Your task to perform on an android device: Show me productivity apps on the Play Store Image 0: 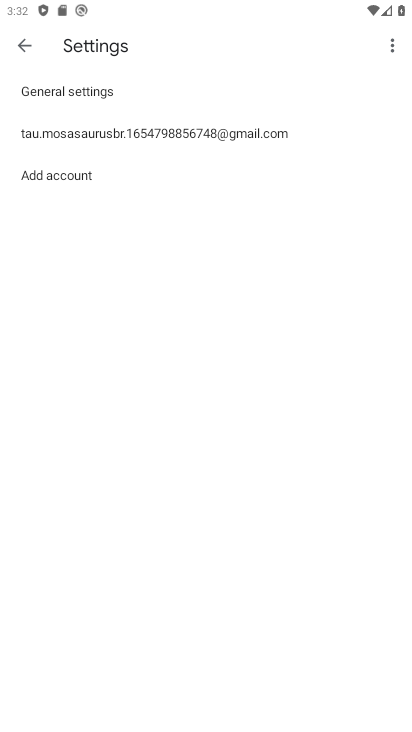
Step 0: press home button
Your task to perform on an android device: Show me productivity apps on the Play Store Image 1: 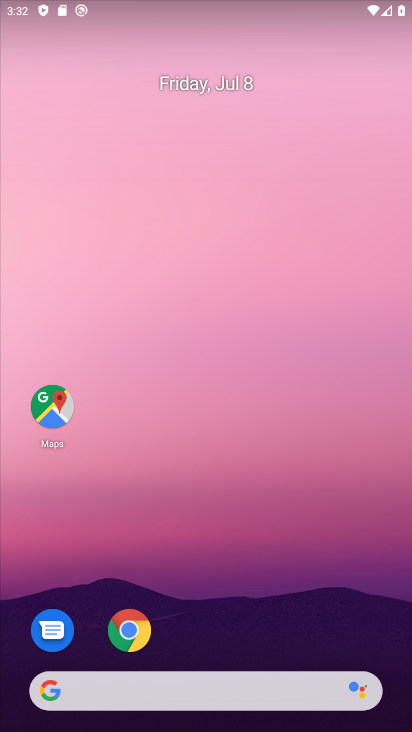
Step 1: drag from (200, 635) to (219, 164)
Your task to perform on an android device: Show me productivity apps on the Play Store Image 2: 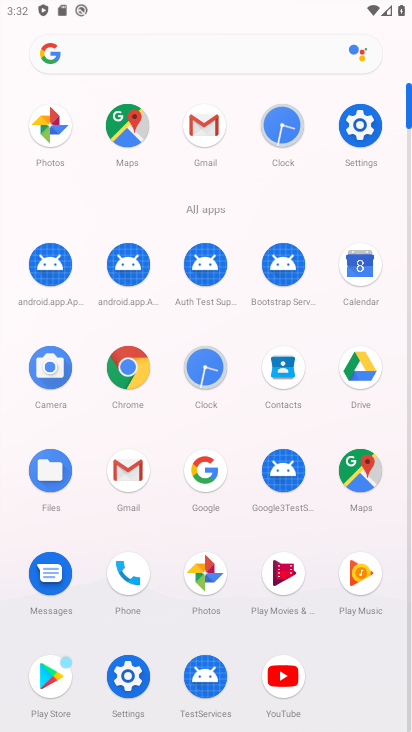
Step 2: click (38, 685)
Your task to perform on an android device: Show me productivity apps on the Play Store Image 3: 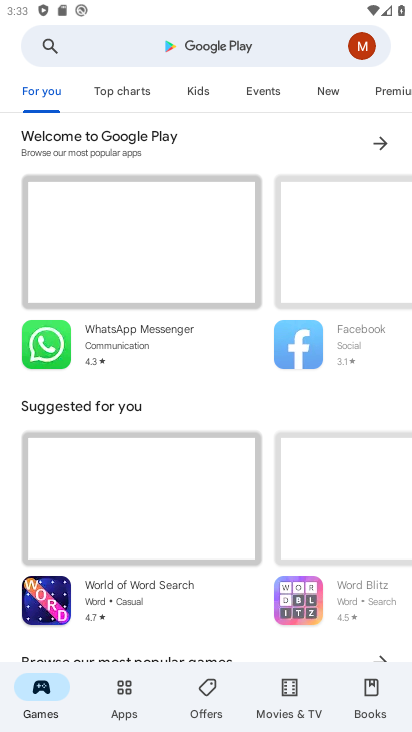
Step 3: click (143, 701)
Your task to perform on an android device: Show me productivity apps on the Play Store Image 4: 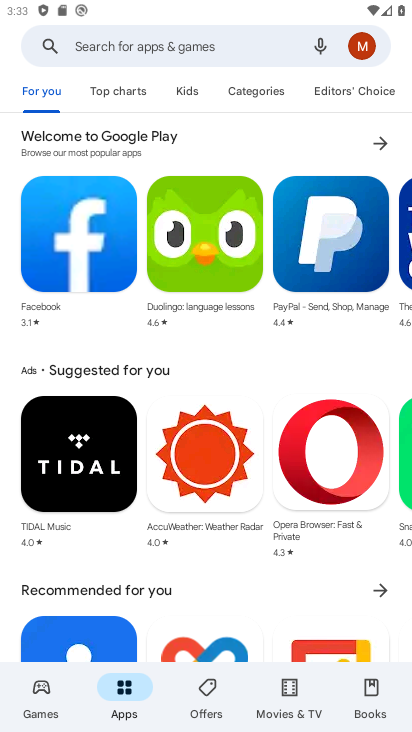
Step 4: click (272, 97)
Your task to perform on an android device: Show me productivity apps on the Play Store Image 5: 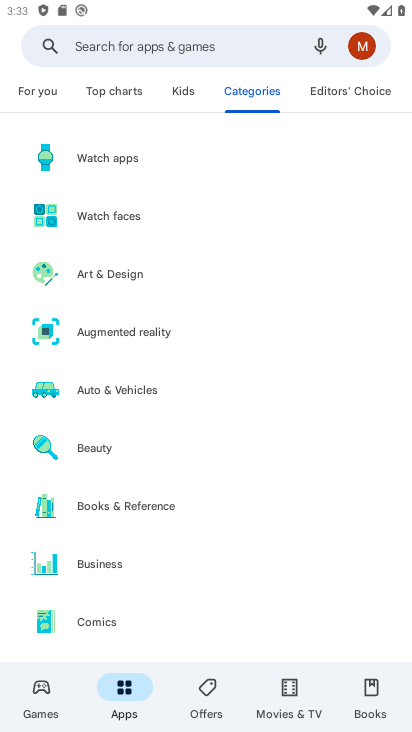
Step 5: drag from (123, 603) to (204, 121)
Your task to perform on an android device: Show me productivity apps on the Play Store Image 6: 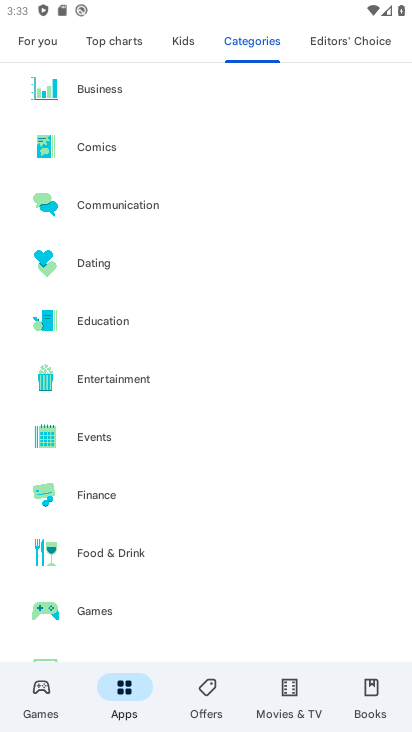
Step 6: drag from (154, 574) to (223, 170)
Your task to perform on an android device: Show me productivity apps on the Play Store Image 7: 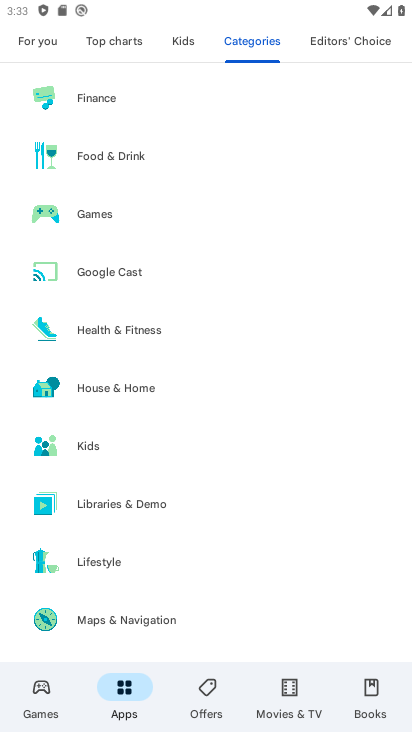
Step 7: drag from (170, 612) to (275, 236)
Your task to perform on an android device: Show me productivity apps on the Play Store Image 8: 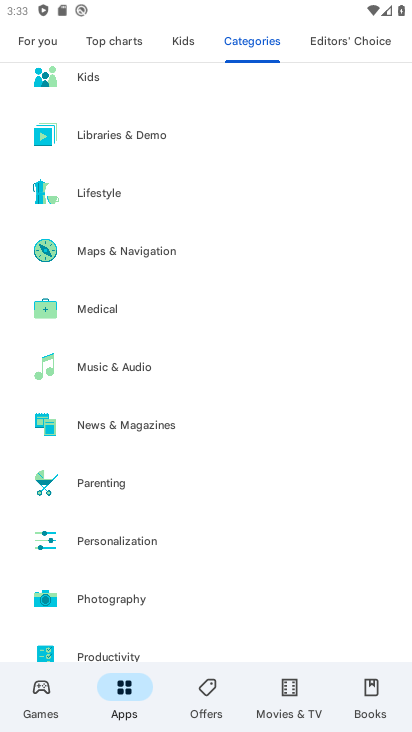
Step 8: drag from (153, 615) to (202, 289)
Your task to perform on an android device: Show me productivity apps on the Play Store Image 9: 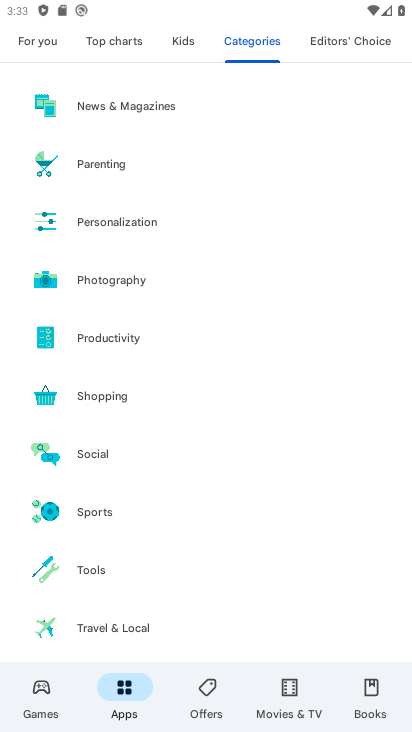
Step 9: click (146, 343)
Your task to perform on an android device: Show me productivity apps on the Play Store Image 10: 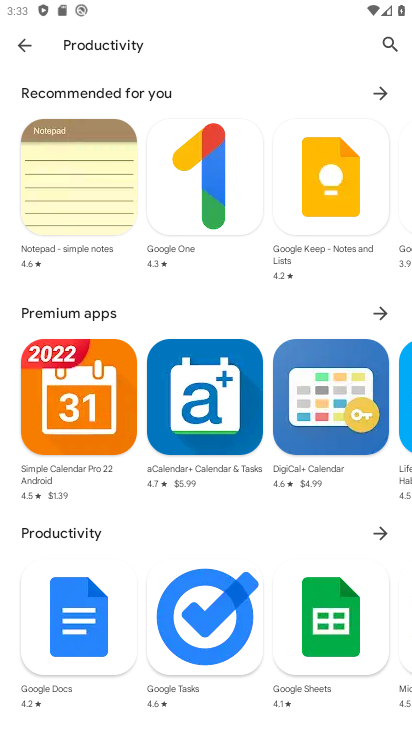
Step 10: task complete